Your task to perform on an android device: Open calendar and show me the fourth week of next month Image 0: 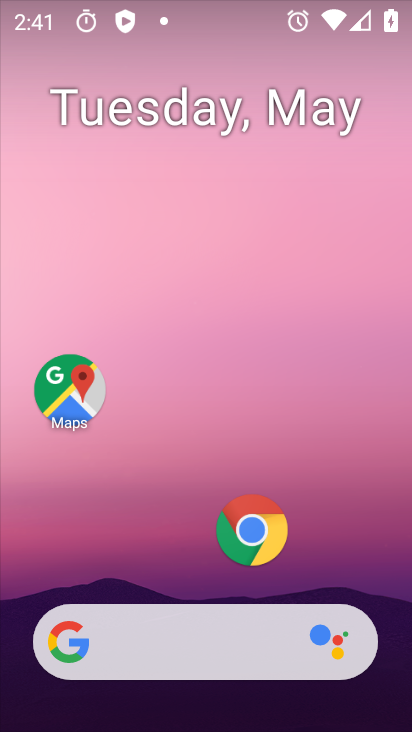
Step 0: drag from (184, 561) to (187, 0)
Your task to perform on an android device: Open calendar and show me the fourth week of next month Image 1: 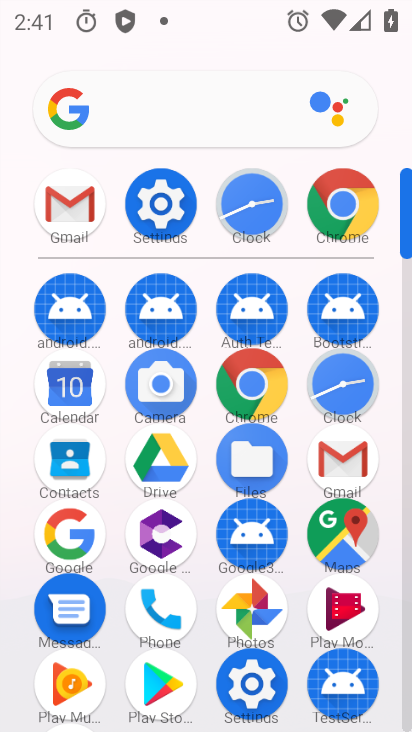
Step 1: click (77, 380)
Your task to perform on an android device: Open calendar and show me the fourth week of next month Image 2: 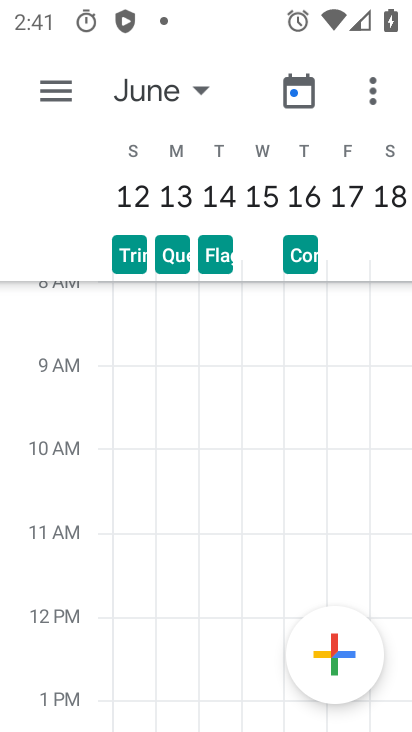
Step 2: task complete